Your task to perform on an android device: snooze an email in the gmail app Image 0: 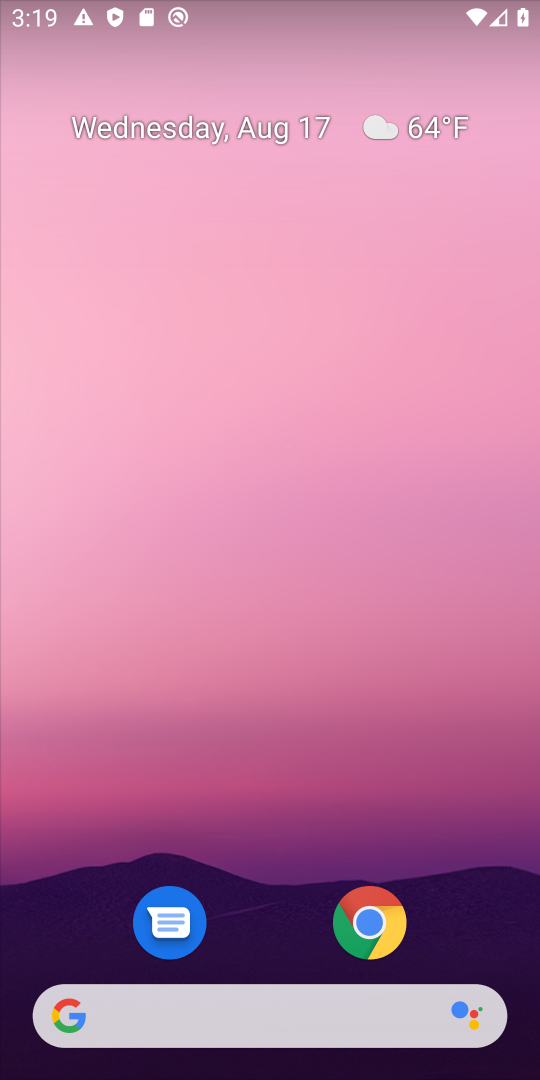
Step 0: drag from (311, 939) to (230, 367)
Your task to perform on an android device: snooze an email in the gmail app Image 1: 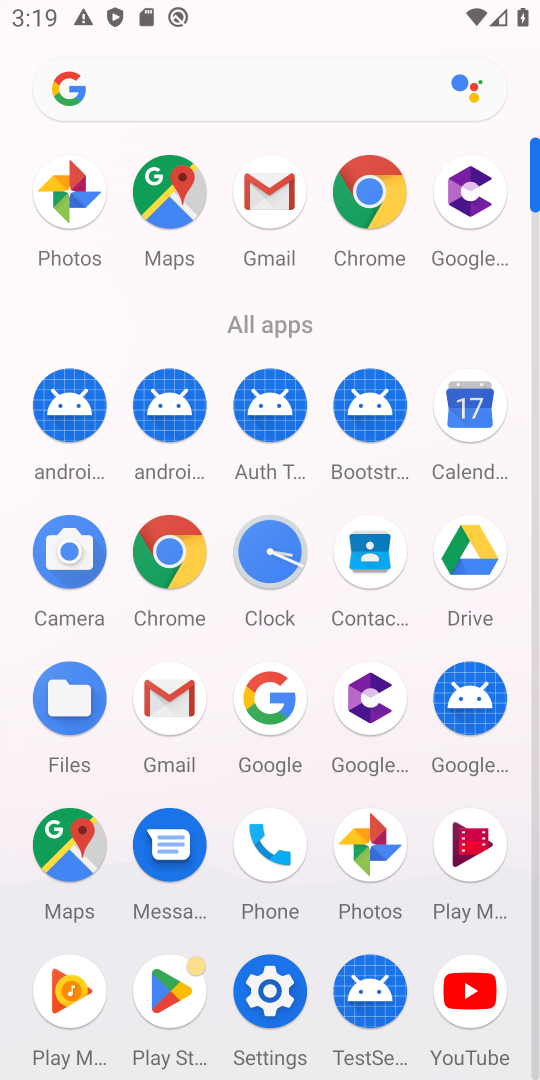
Step 1: click (253, 191)
Your task to perform on an android device: snooze an email in the gmail app Image 2: 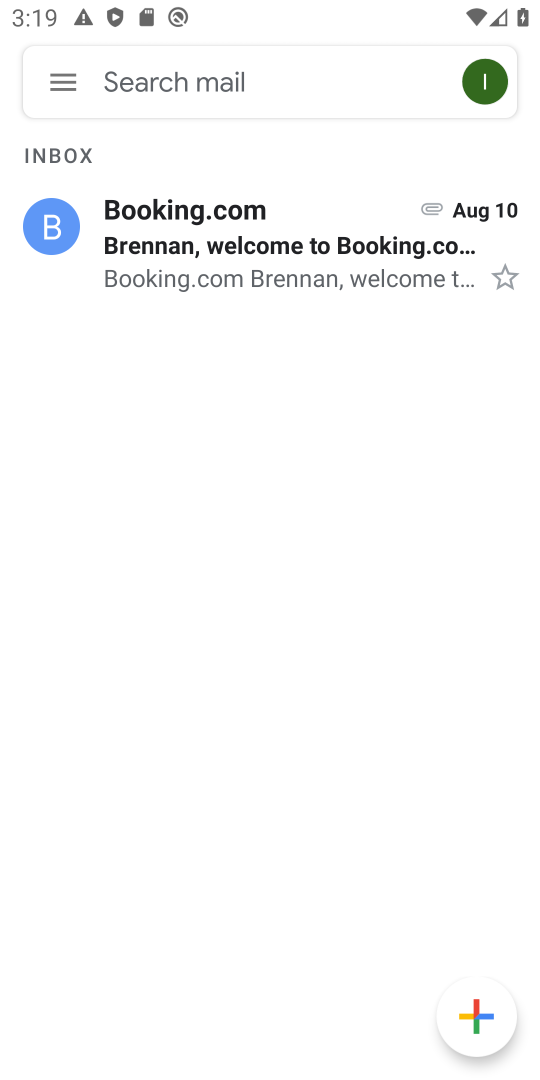
Step 2: click (54, 219)
Your task to perform on an android device: snooze an email in the gmail app Image 3: 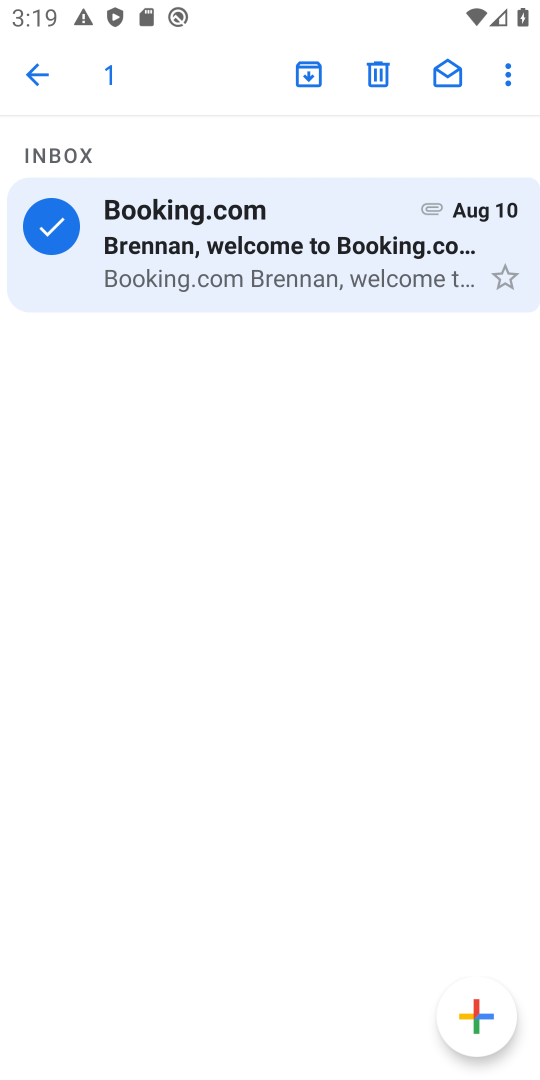
Step 3: click (520, 65)
Your task to perform on an android device: snooze an email in the gmail app Image 4: 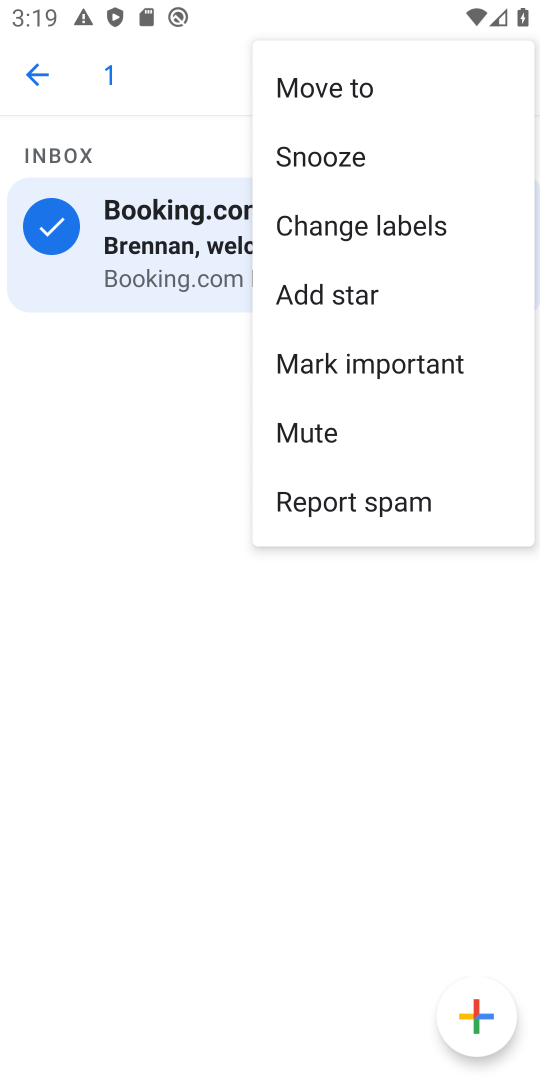
Step 4: click (337, 149)
Your task to perform on an android device: snooze an email in the gmail app Image 5: 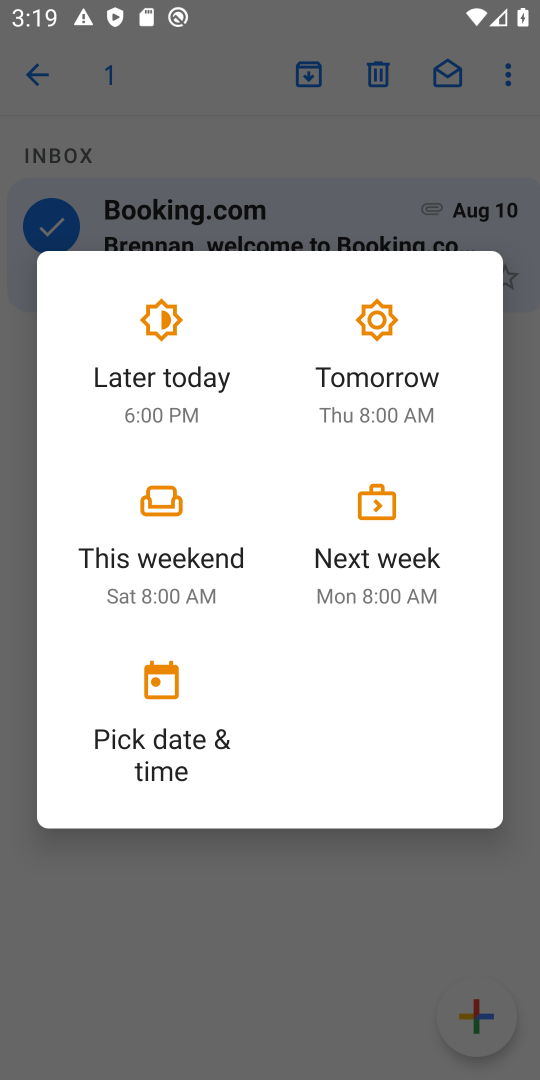
Step 5: click (351, 531)
Your task to perform on an android device: snooze an email in the gmail app Image 6: 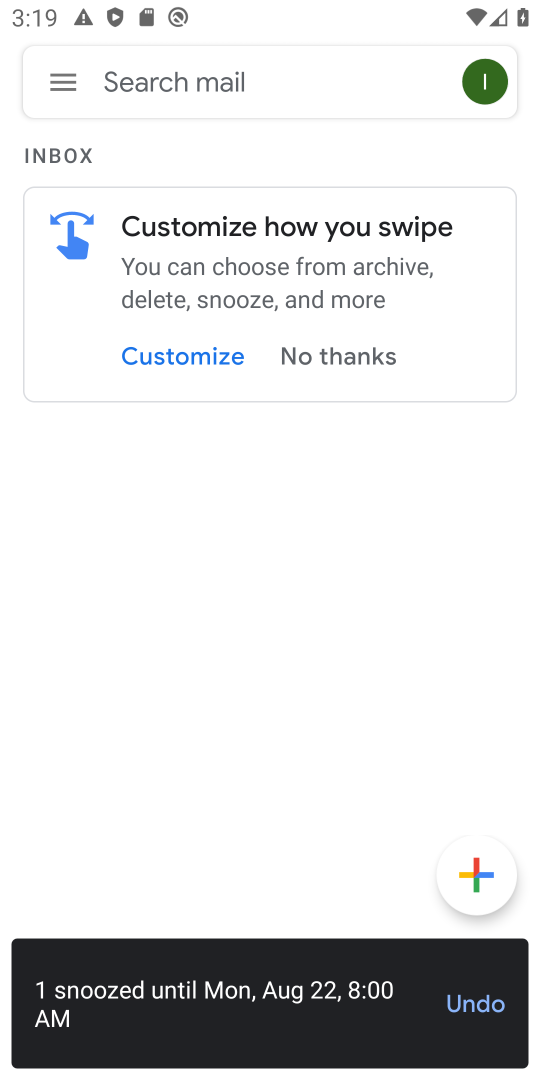
Step 6: task complete